Your task to perform on an android device: open app "Facebook" (install if not already installed) and go to login screen Image 0: 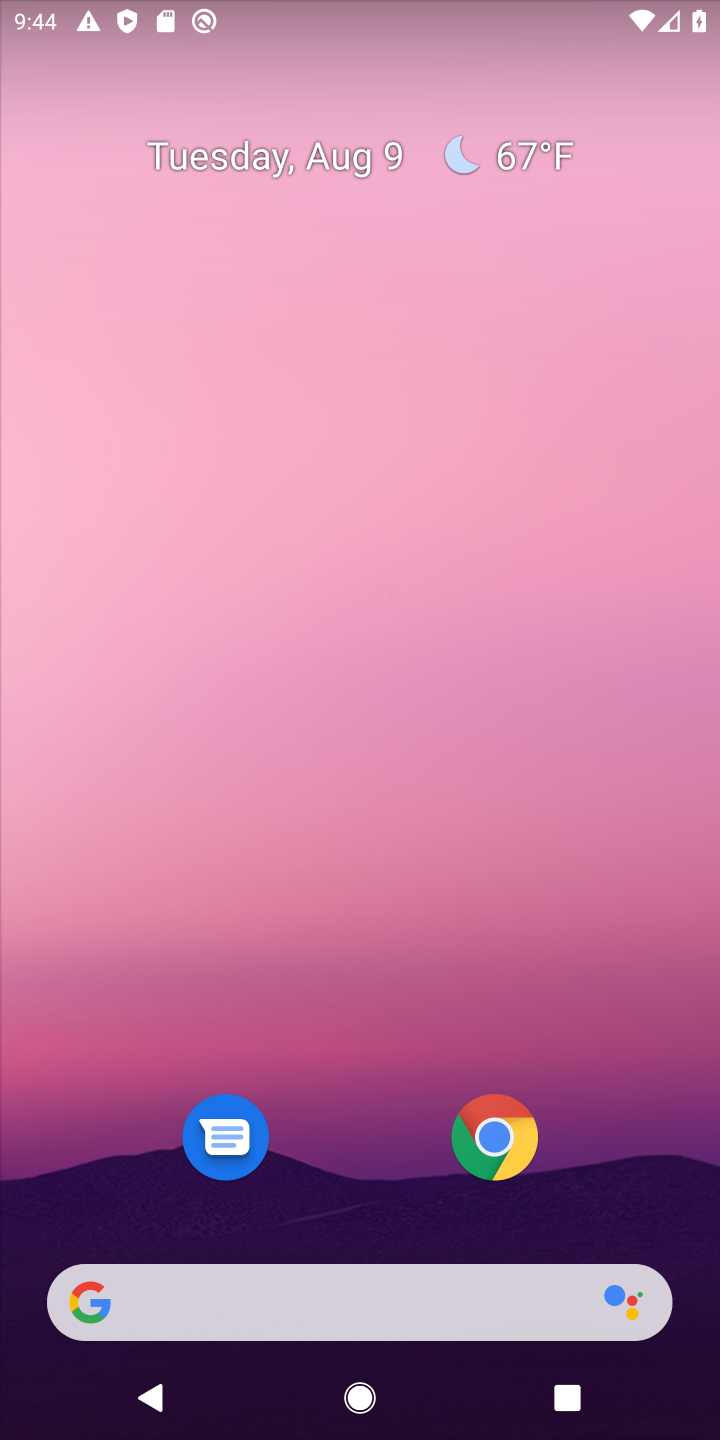
Step 0: drag from (668, 1186) to (266, 41)
Your task to perform on an android device: open app "Facebook" (install if not already installed) and go to login screen Image 1: 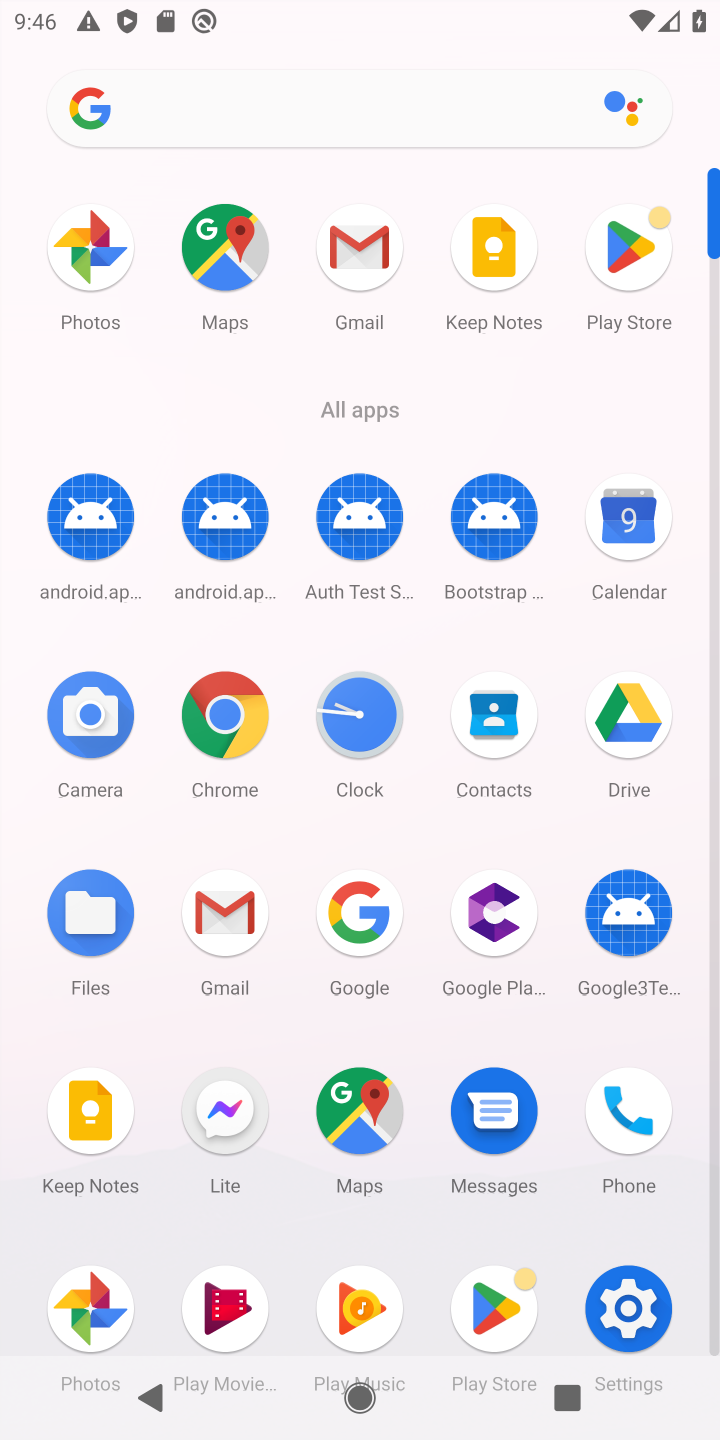
Step 1: click (478, 1329)
Your task to perform on an android device: open app "Facebook" (install if not already installed) and go to login screen Image 2: 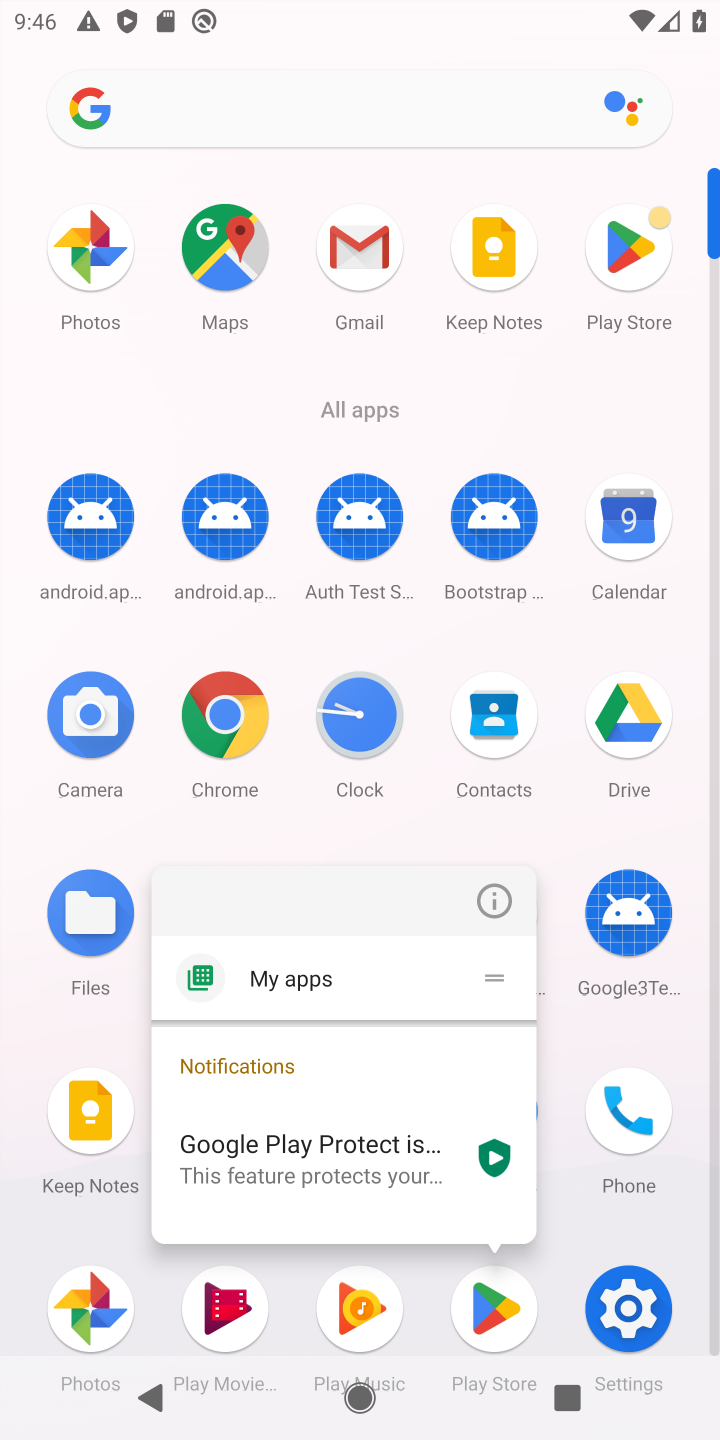
Step 2: click (630, 256)
Your task to perform on an android device: open app "Facebook" (install if not already installed) and go to login screen Image 3: 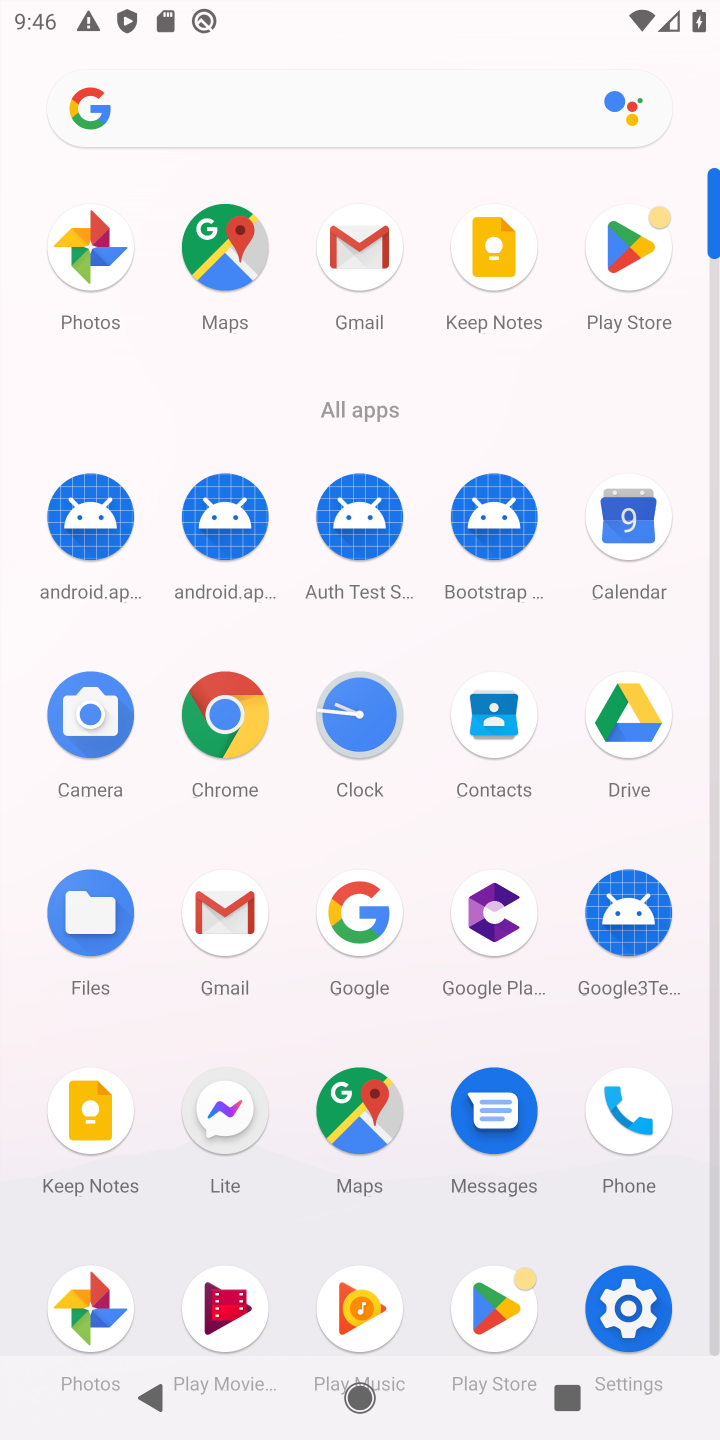
Step 3: click (618, 260)
Your task to perform on an android device: open app "Facebook" (install if not already installed) and go to login screen Image 4: 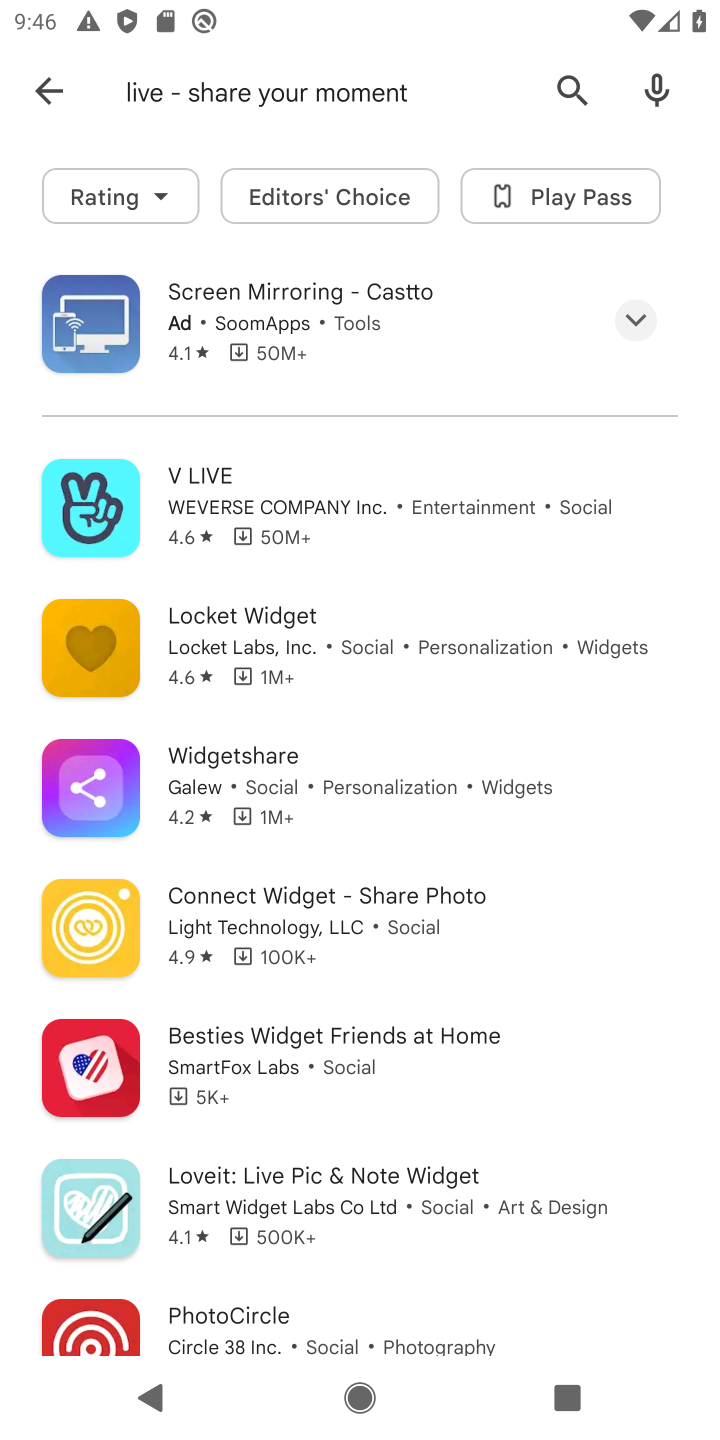
Step 4: press back button
Your task to perform on an android device: open app "Facebook" (install if not already installed) and go to login screen Image 5: 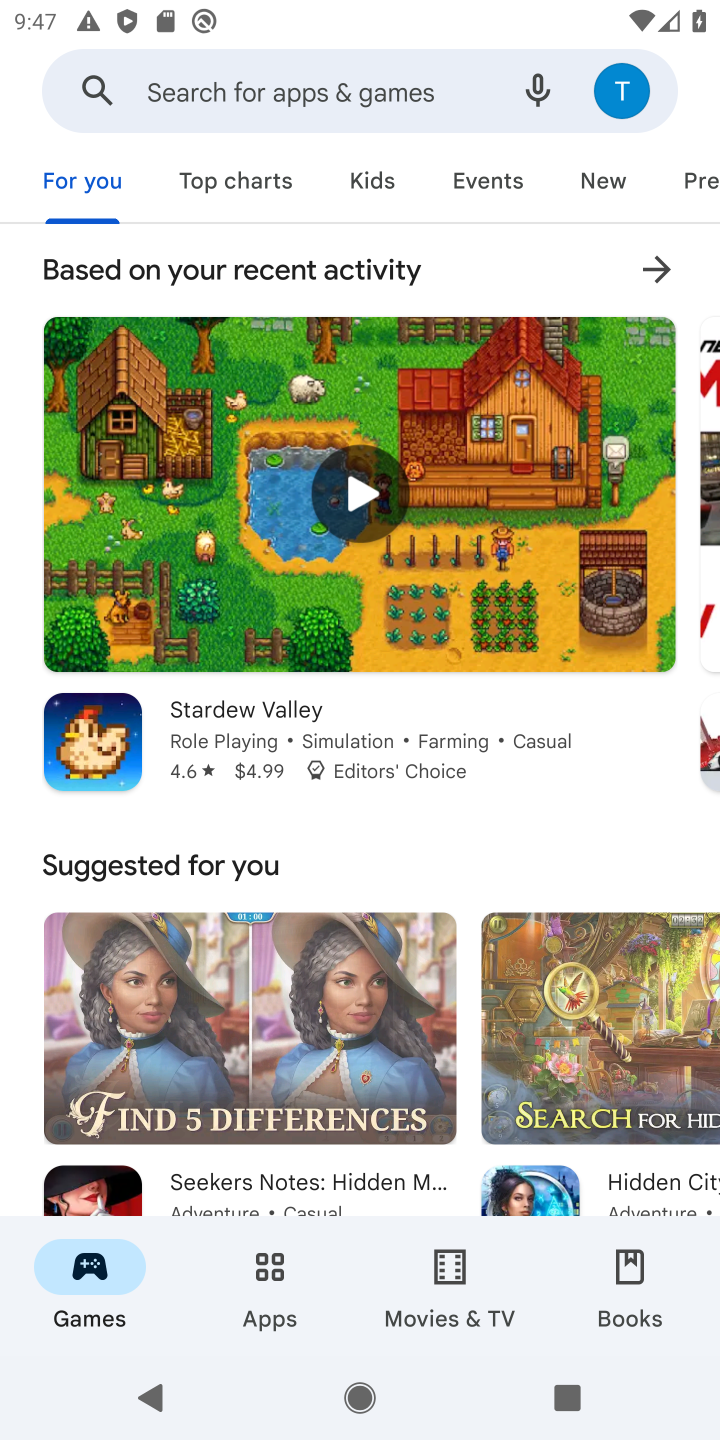
Step 5: click (169, 99)
Your task to perform on an android device: open app "Facebook" (install if not already installed) and go to login screen Image 6: 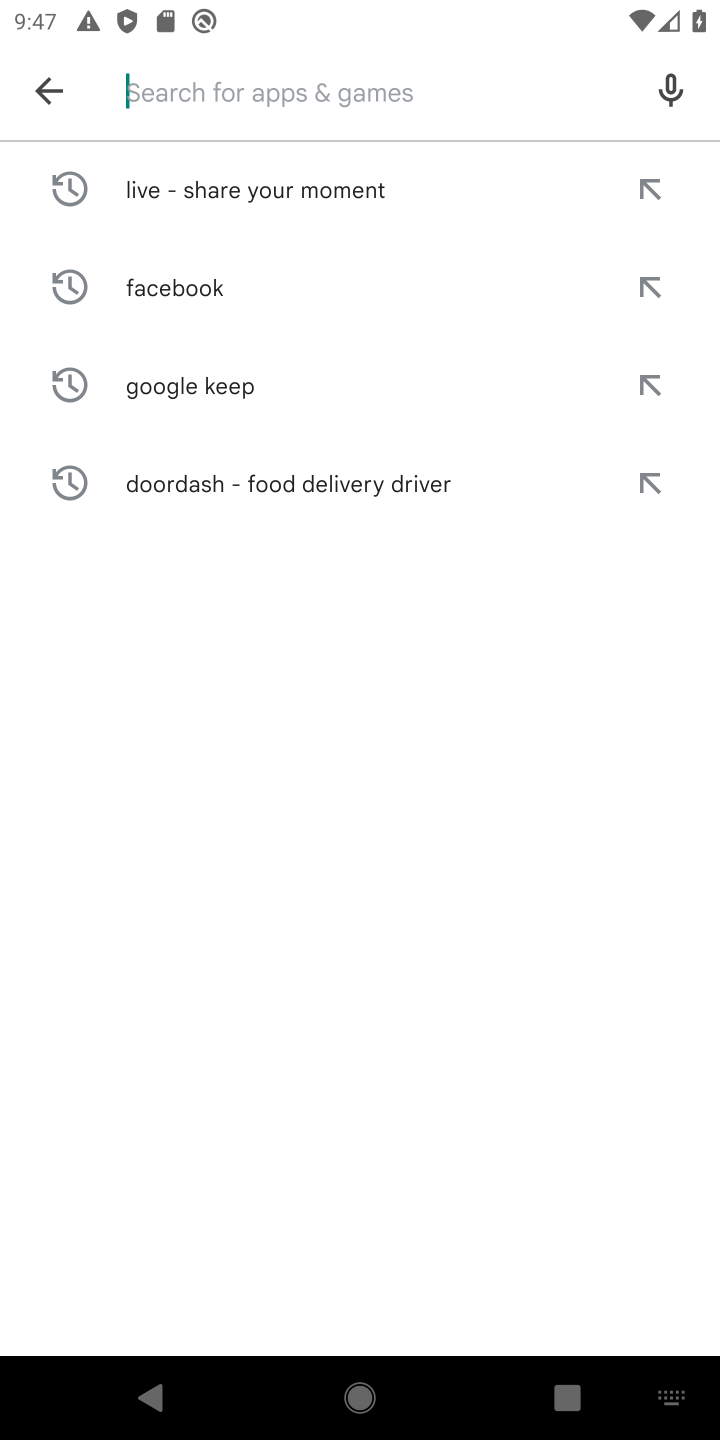
Step 6: click (190, 304)
Your task to perform on an android device: open app "Facebook" (install if not already installed) and go to login screen Image 7: 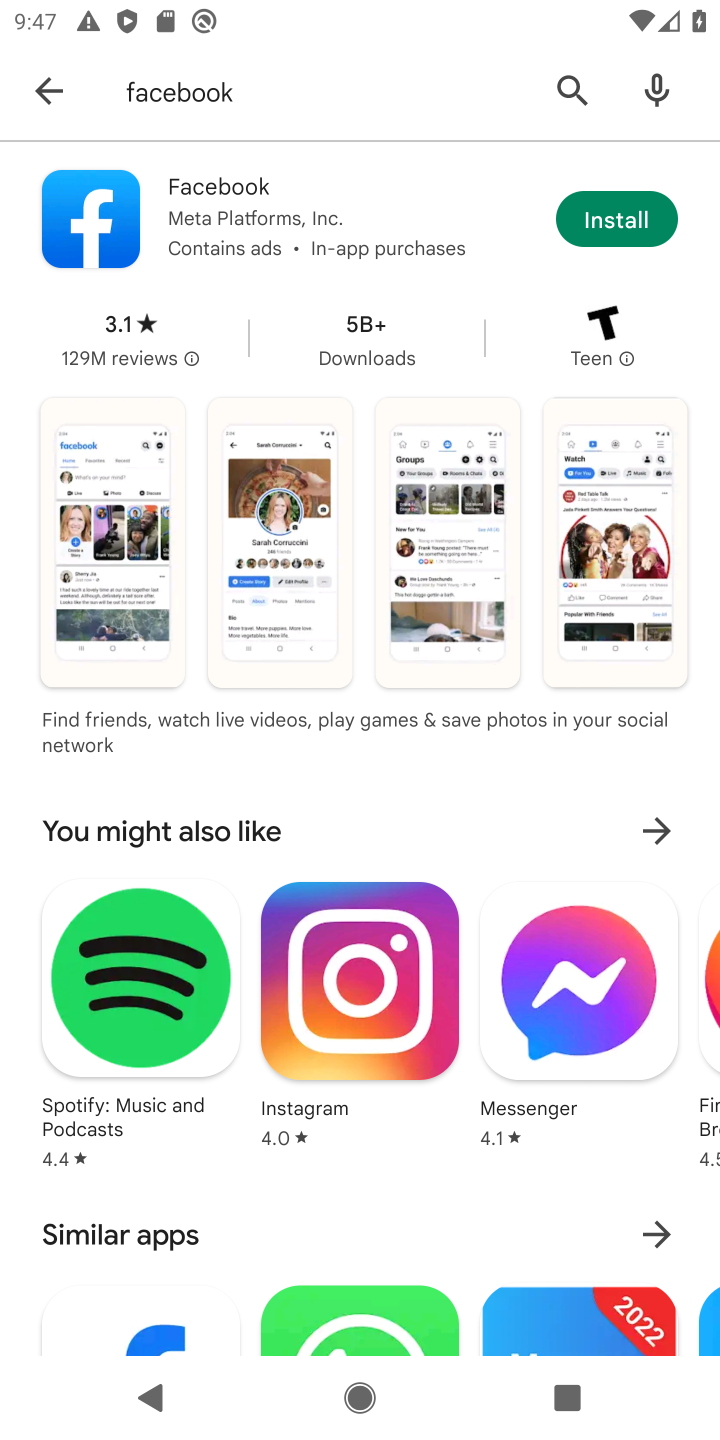
Step 7: task complete